Your task to perform on an android device: Open wifi settings Image 0: 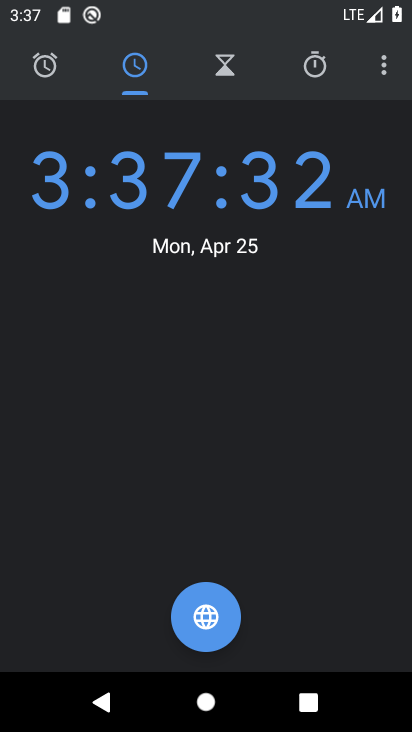
Step 0: press home button
Your task to perform on an android device: Open wifi settings Image 1: 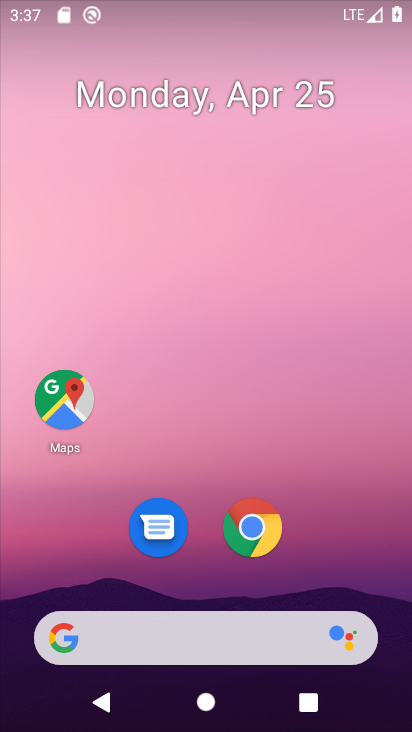
Step 1: drag from (381, 605) to (328, 2)
Your task to perform on an android device: Open wifi settings Image 2: 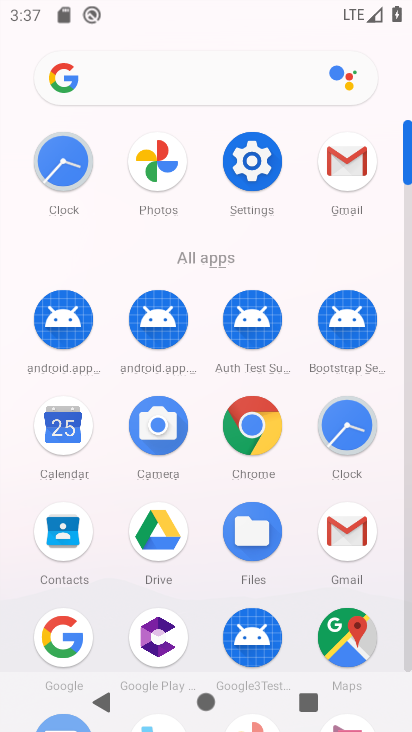
Step 2: click (407, 659)
Your task to perform on an android device: Open wifi settings Image 3: 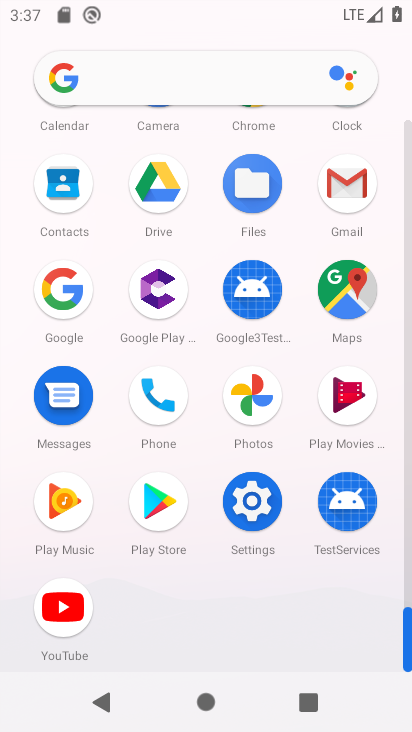
Step 3: click (250, 502)
Your task to perform on an android device: Open wifi settings Image 4: 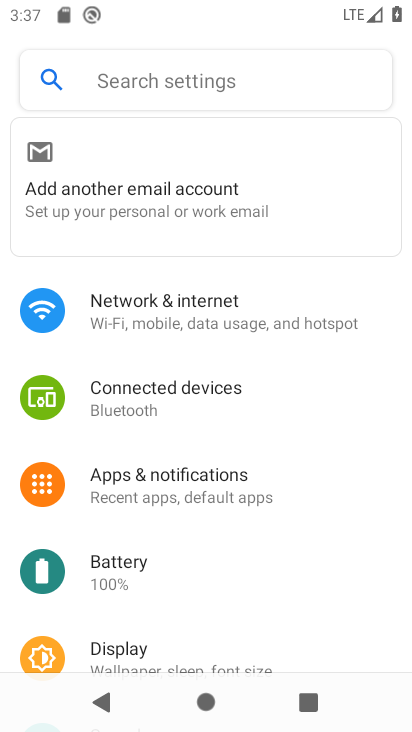
Step 4: click (154, 292)
Your task to perform on an android device: Open wifi settings Image 5: 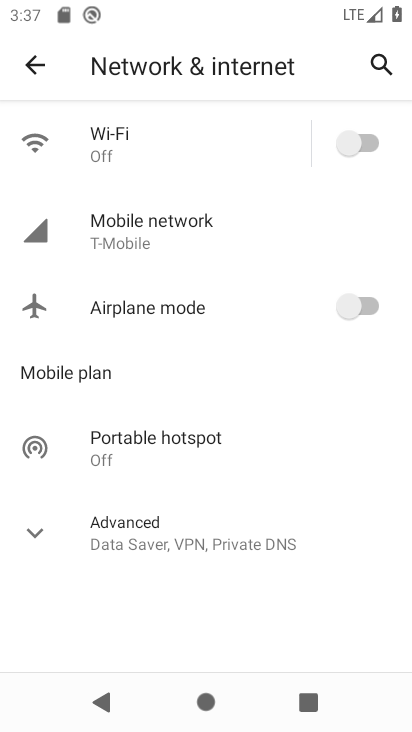
Step 5: click (91, 137)
Your task to perform on an android device: Open wifi settings Image 6: 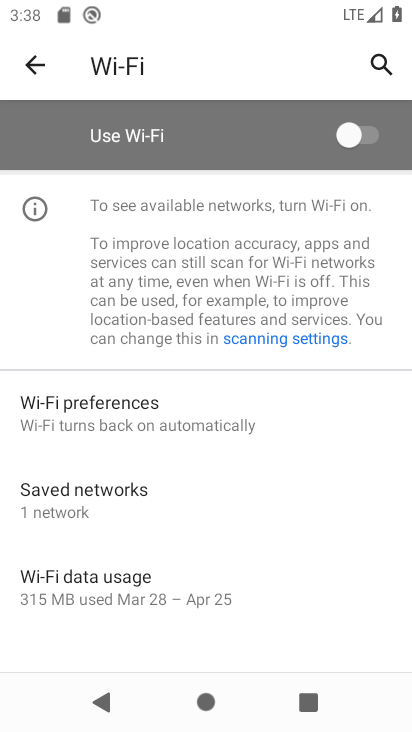
Step 6: task complete